Your task to perform on an android device: Go to Maps Image 0: 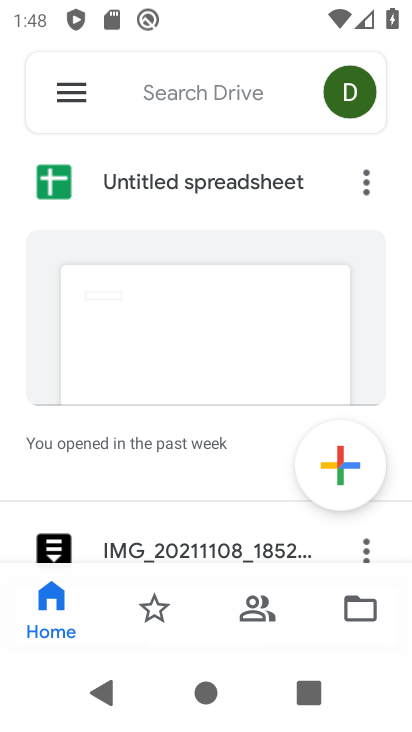
Step 0: press home button
Your task to perform on an android device: Go to Maps Image 1: 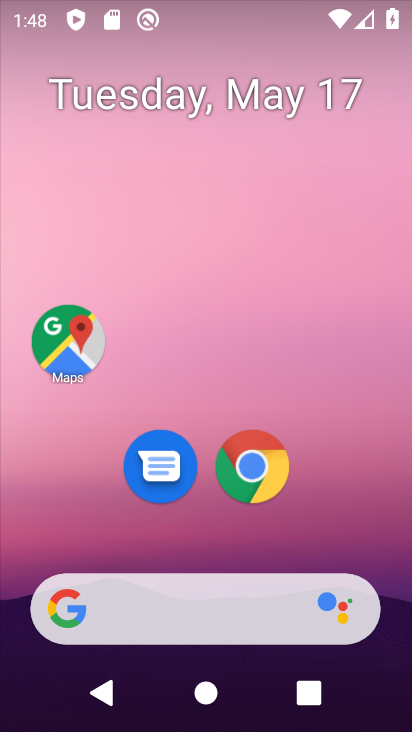
Step 1: click (81, 353)
Your task to perform on an android device: Go to Maps Image 2: 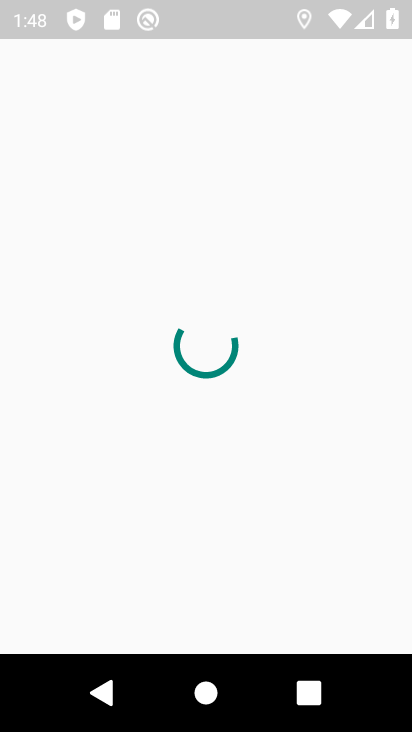
Step 2: click (375, 569)
Your task to perform on an android device: Go to Maps Image 3: 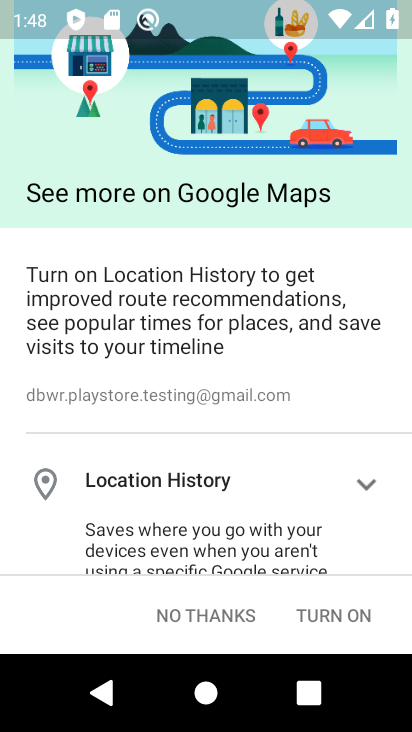
Step 3: click (238, 620)
Your task to perform on an android device: Go to Maps Image 4: 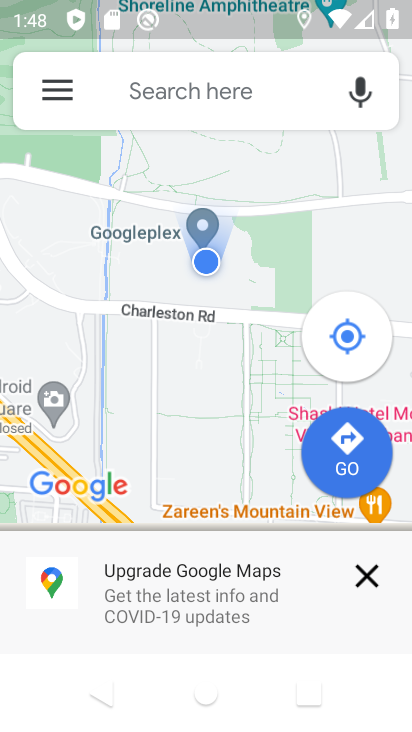
Step 4: click (363, 589)
Your task to perform on an android device: Go to Maps Image 5: 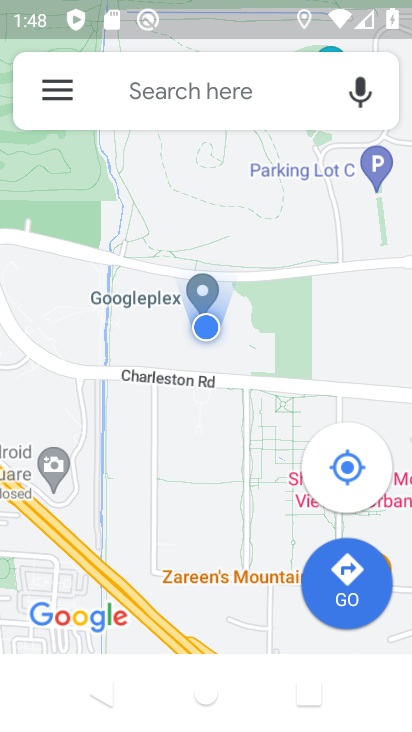
Step 5: task complete